Your task to perform on an android device: make emails show in primary in the gmail app Image 0: 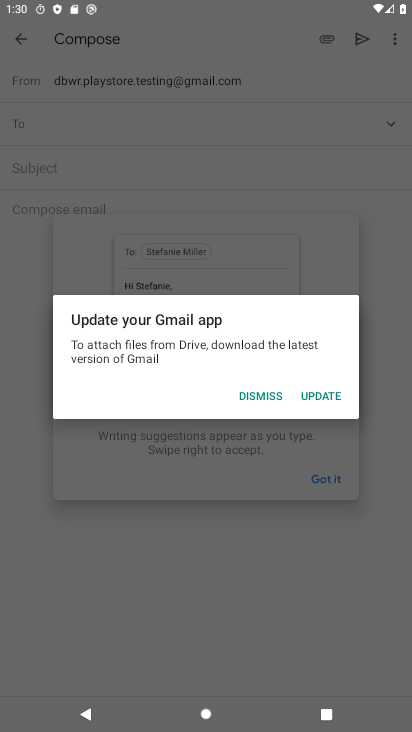
Step 0: press home button
Your task to perform on an android device: make emails show in primary in the gmail app Image 1: 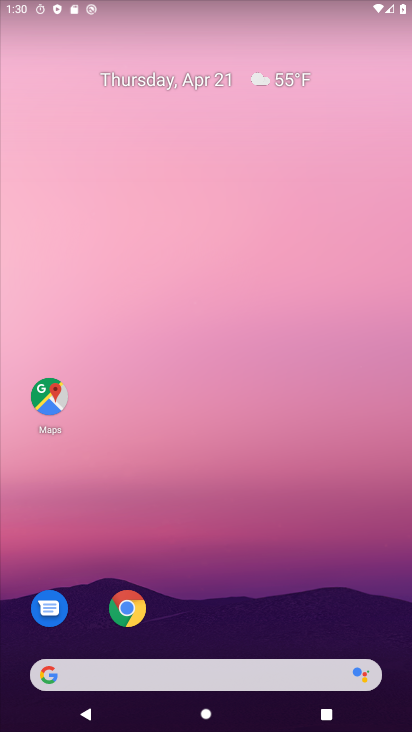
Step 1: drag from (227, 590) to (153, 162)
Your task to perform on an android device: make emails show in primary in the gmail app Image 2: 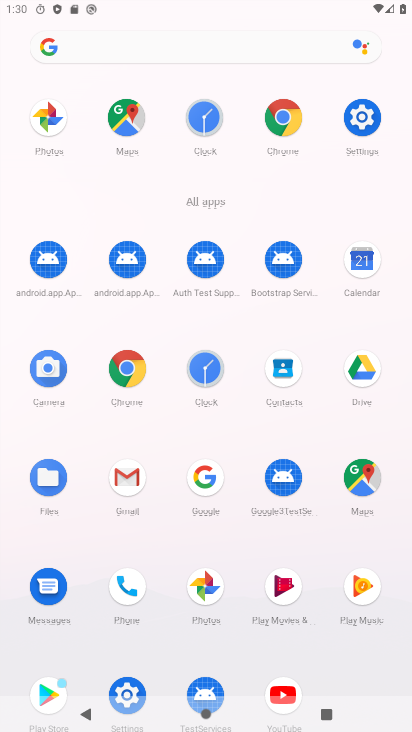
Step 2: click (123, 478)
Your task to perform on an android device: make emails show in primary in the gmail app Image 3: 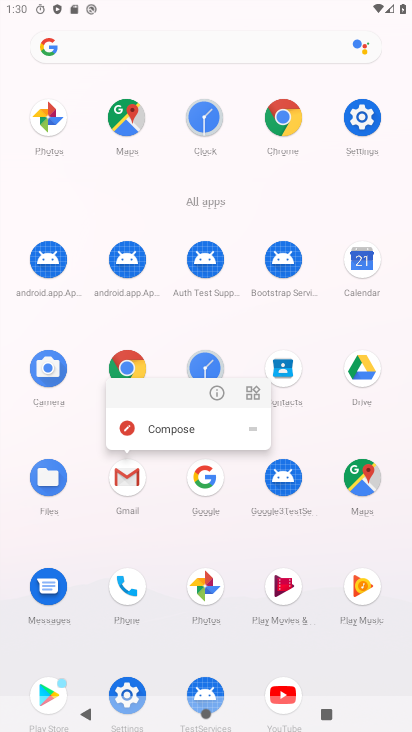
Step 3: click (123, 478)
Your task to perform on an android device: make emails show in primary in the gmail app Image 4: 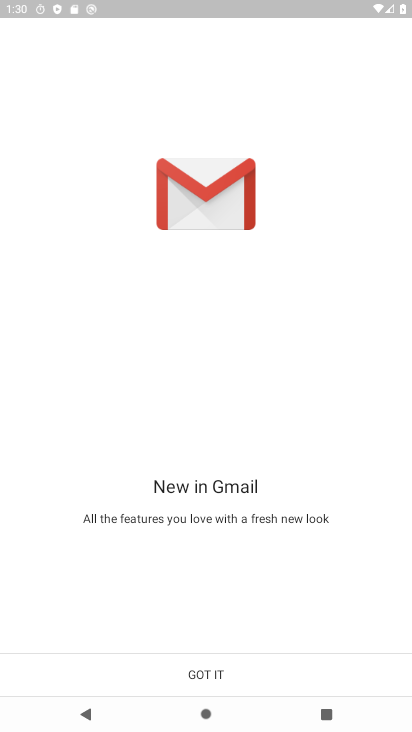
Step 4: click (210, 674)
Your task to perform on an android device: make emails show in primary in the gmail app Image 5: 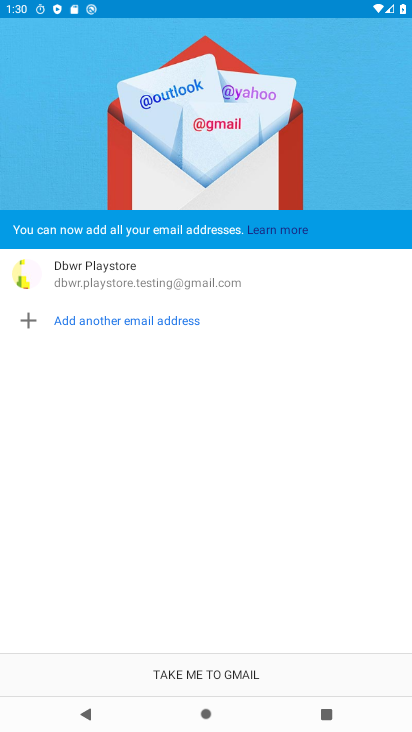
Step 5: click (213, 669)
Your task to perform on an android device: make emails show in primary in the gmail app Image 6: 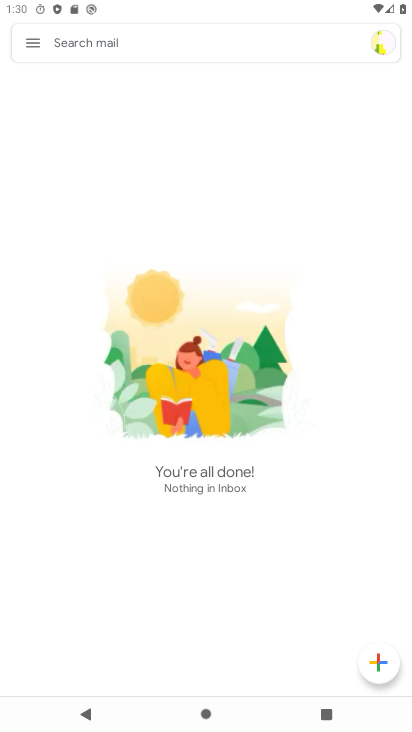
Step 6: click (36, 39)
Your task to perform on an android device: make emails show in primary in the gmail app Image 7: 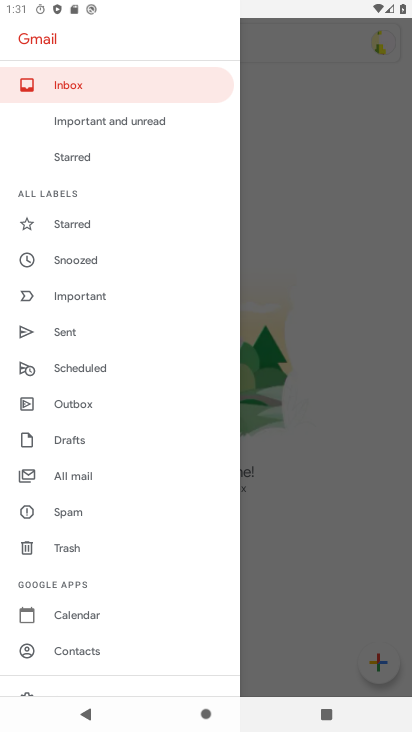
Step 7: drag from (95, 649) to (74, 350)
Your task to perform on an android device: make emails show in primary in the gmail app Image 8: 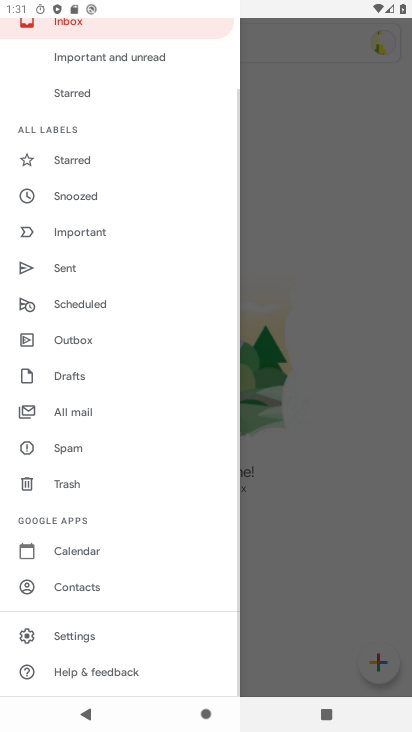
Step 8: click (74, 642)
Your task to perform on an android device: make emails show in primary in the gmail app Image 9: 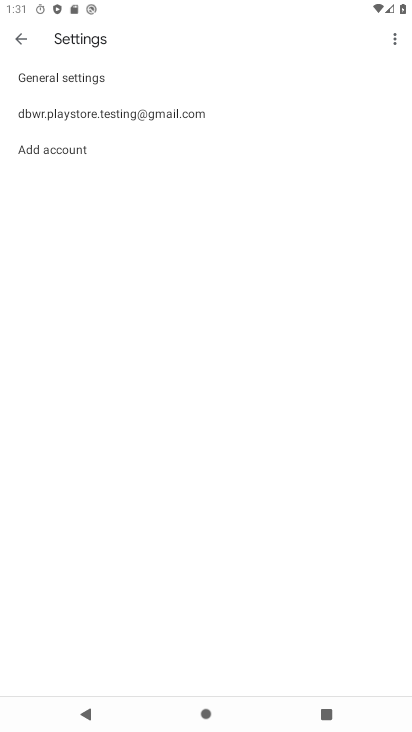
Step 9: click (72, 112)
Your task to perform on an android device: make emails show in primary in the gmail app Image 10: 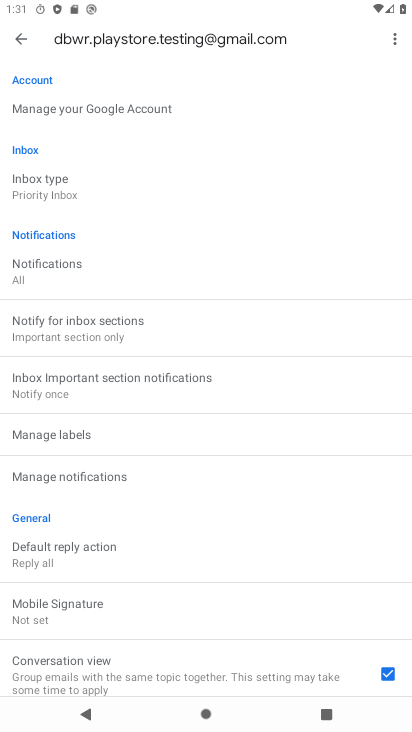
Step 10: click (57, 187)
Your task to perform on an android device: make emails show in primary in the gmail app Image 11: 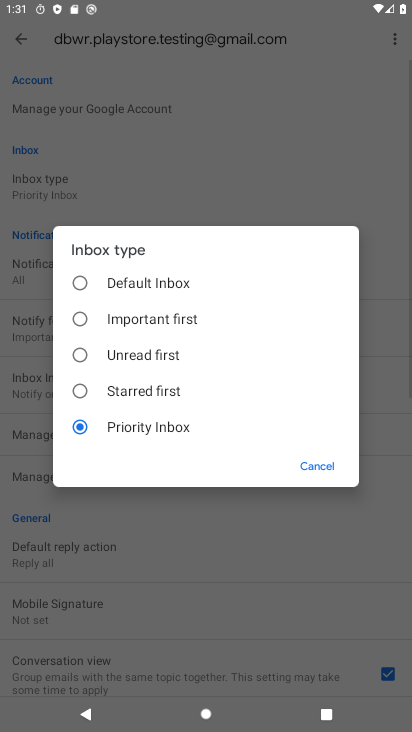
Step 11: click (92, 279)
Your task to perform on an android device: make emails show in primary in the gmail app Image 12: 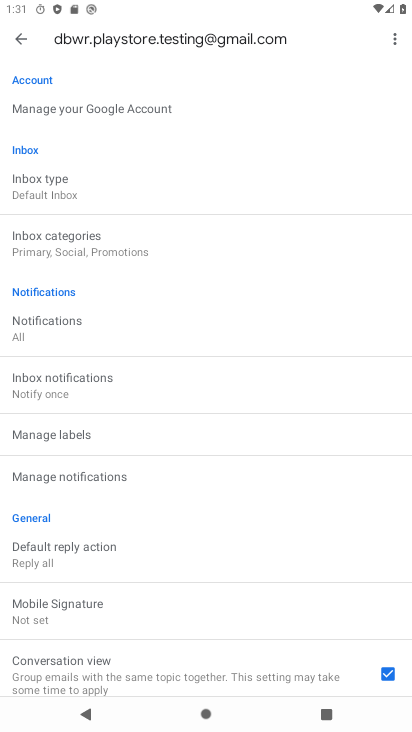
Step 12: press back button
Your task to perform on an android device: make emails show in primary in the gmail app Image 13: 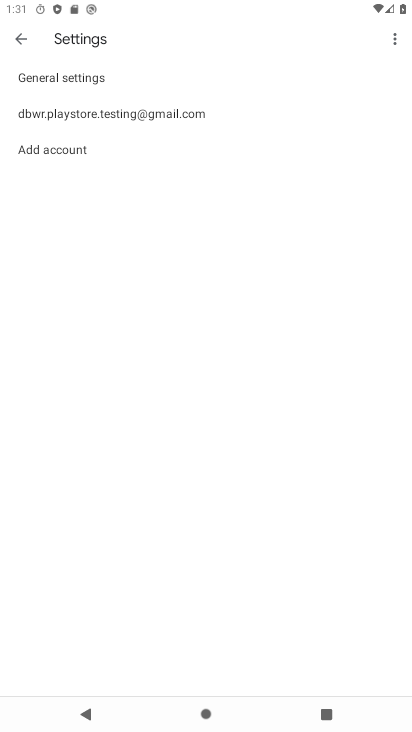
Step 13: press back button
Your task to perform on an android device: make emails show in primary in the gmail app Image 14: 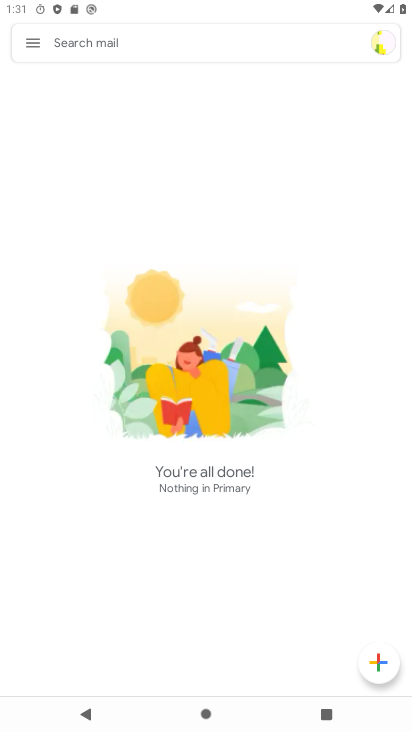
Step 14: click (24, 40)
Your task to perform on an android device: make emails show in primary in the gmail app Image 15: 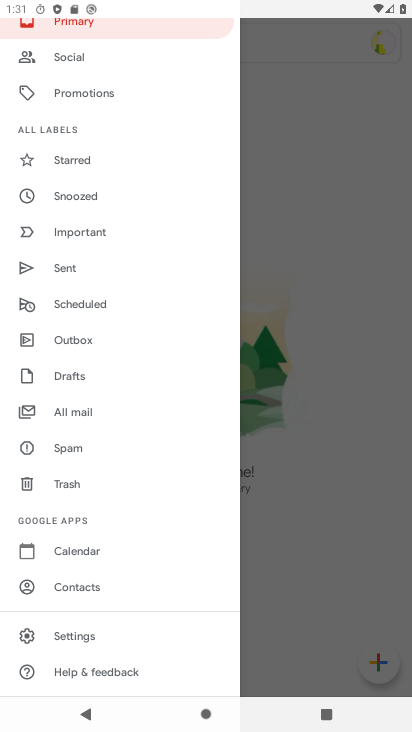
Step 15: task complete